Your task to perform on an android device: toggle pop-ups in chrome Image 0: 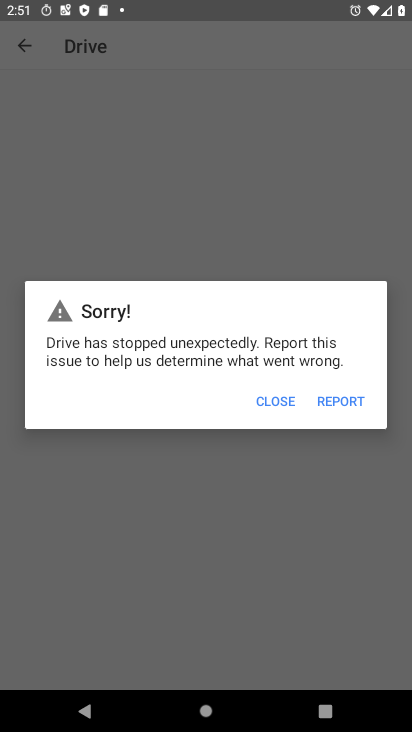
Step 0: press home button
Your task to perform on an android device: toggle pop-ups in chrome Image 1: 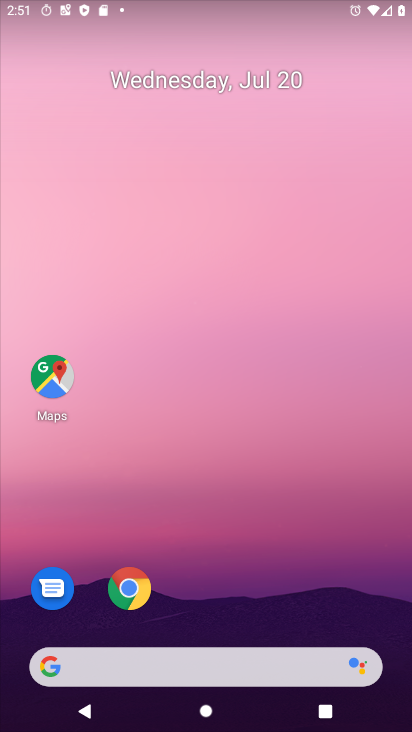
Step 1: drag from (183, 564) to (232, 66)
Your task to perform on an android device: toggle pop-ups in chrome Image 2: 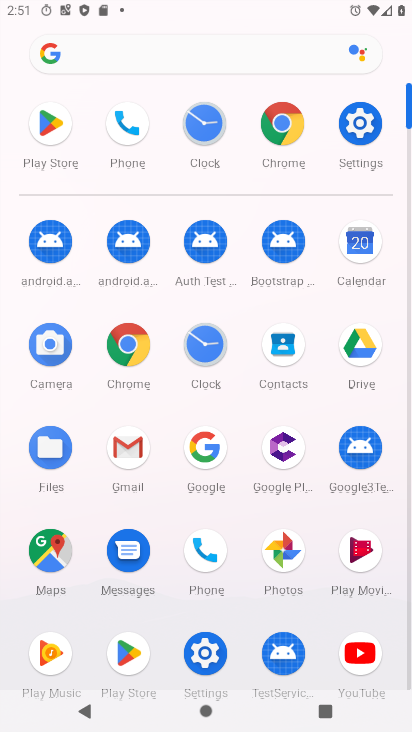
Step 2: click (275, 125)
Your task to perform on an android device: toggle pop-ups in chrome Image 3: 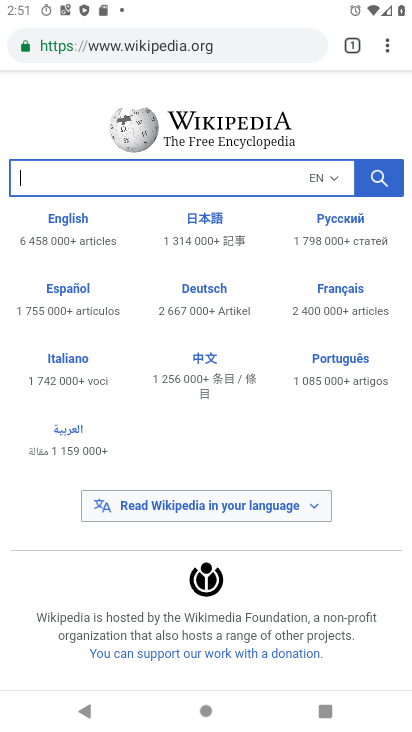
Step 3: drag from (381, 45) to (249, 549)
Your task to perform on an android device: toggle pop-ups in chrome Image 4: 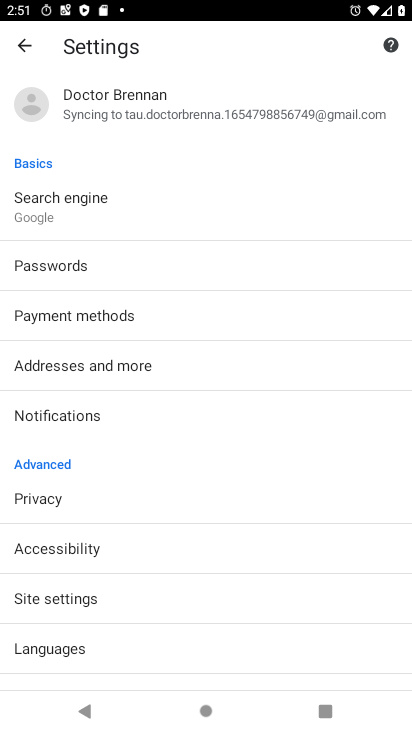
Step 4: click (59, 597)
Your task to perform on an android device: toggle pop-ups in chrome Image 5: 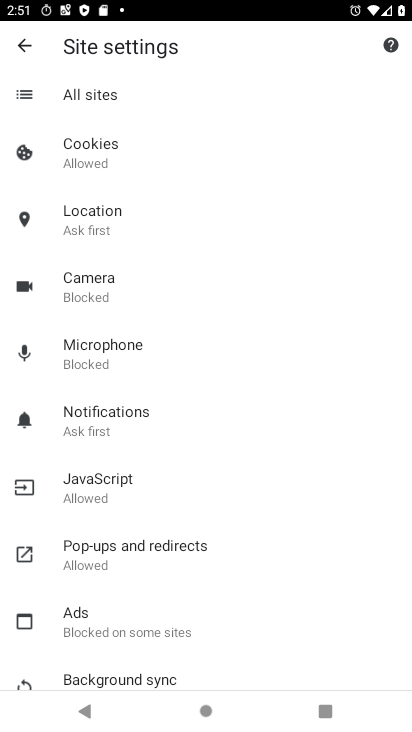
Step 5: click (80, 568)
Your task to perform on an android device: toggle pop-ups in chrome Image 6: 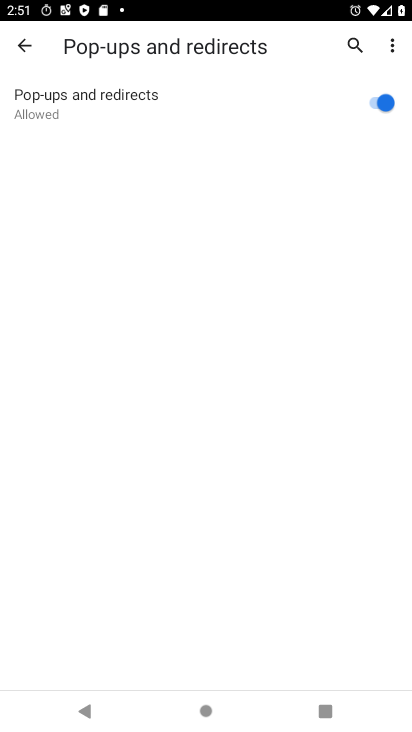
Step 6: click (372, 102)
Your task to perform on an android device: toggle pop-ups in chrome Image 7: 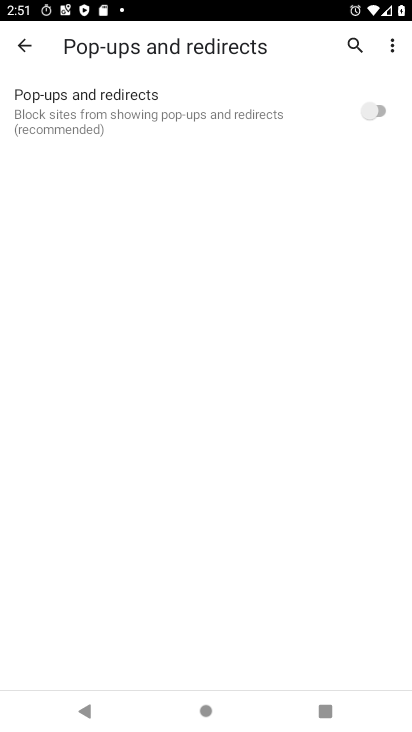
Step 7: task complete